Your task to perform on an android device: set an alarm Image 0: 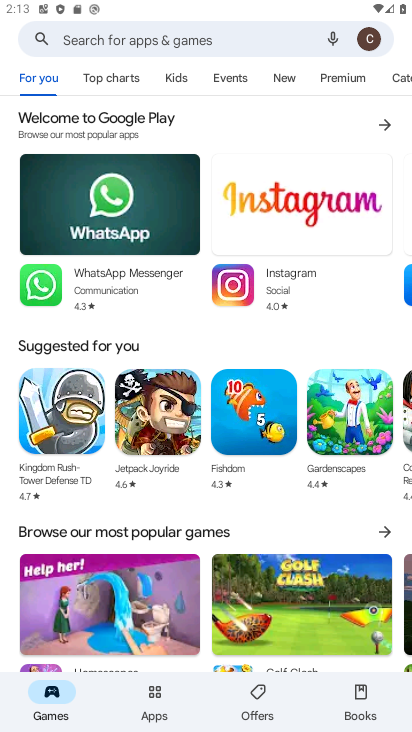
Step 0: press back button
Your task to perform on an android device: set an alarm Image 1: 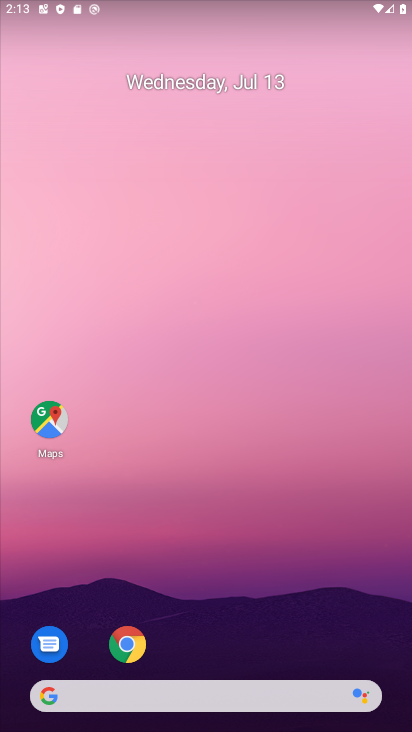
Step 1: drag from (197, 700) to (291, 45)
Your task to perform on an android device: set an alarm Image 2: 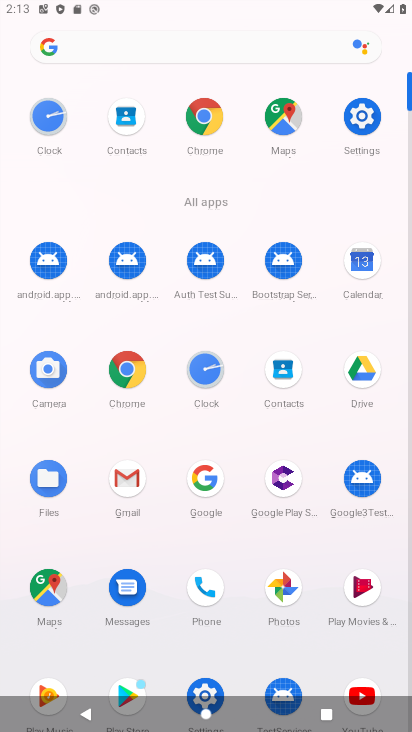
Step 2: click (198, 370)
Your task to perform on an android device: set an alarm Image 3: 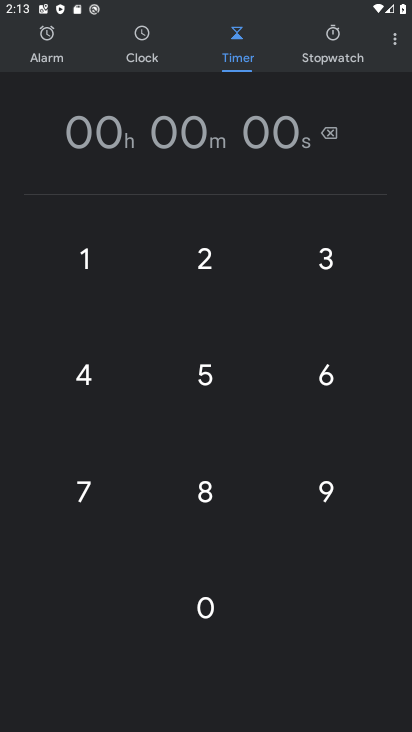
Step 3: click (44, 39)
Your task to perform on an android device: set an alarm Image 4: 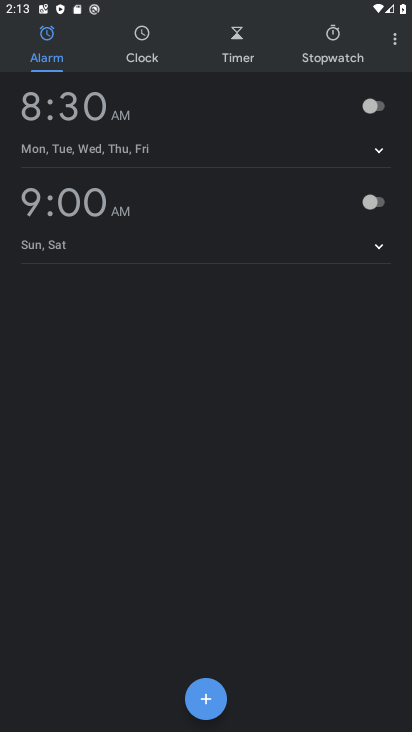
Step 4: click (382, 110)
Your task to perform on an android device: set an alarm Image 5: 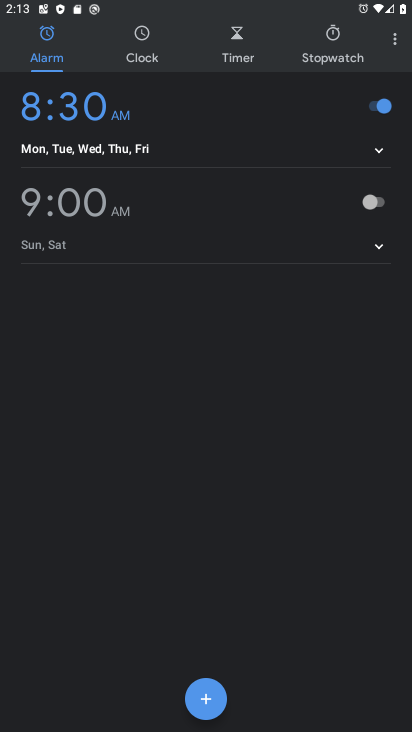
Step 5: task complete